Your task to perform on an android device: open app "Google Sheets" (install if not already installed) Image 0: 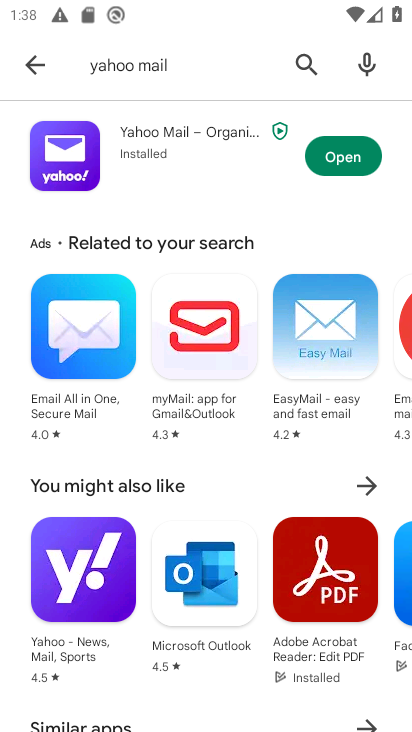
Step 0: press home button
Your task to perform on an android device: open app "Google Sheets" (install if not already installed) Image 1: 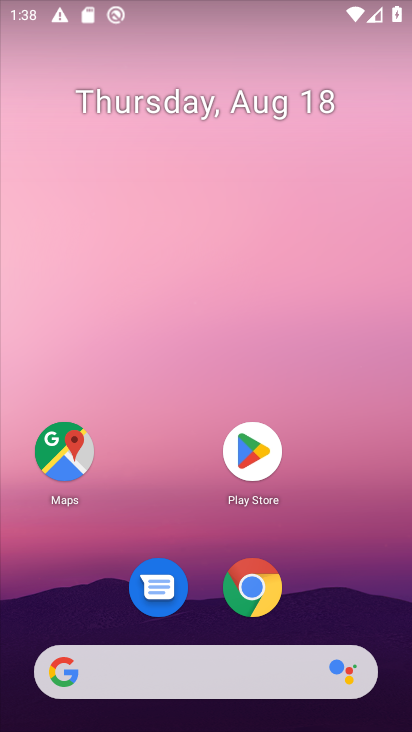
Step 1: click (245, 443)
Your task to perform on an android device: open app "Google Sheets" (install if not already installed) Image 2: 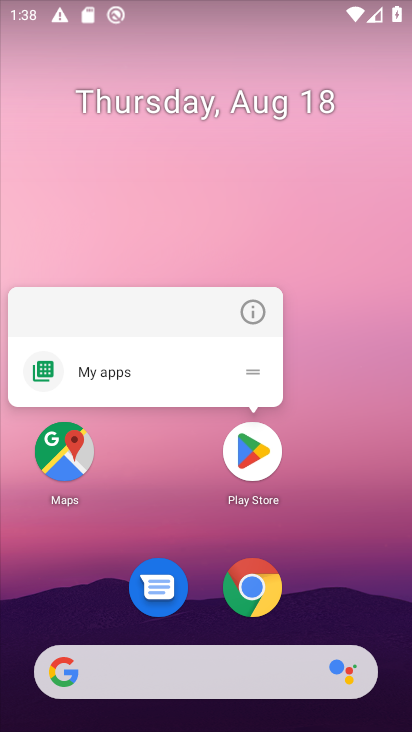
Step 2: click (248, 448)
Your task to perform on an android device: open app "Google Sheets" (install if not already installed) Image 3: 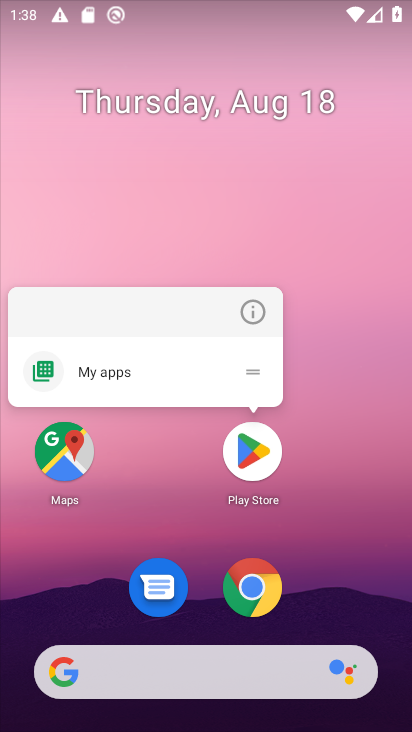
Step 3: click (248, 448)
Your task to perform on an android device: open app "Google Sheets" (install if not already installed) Image 4: 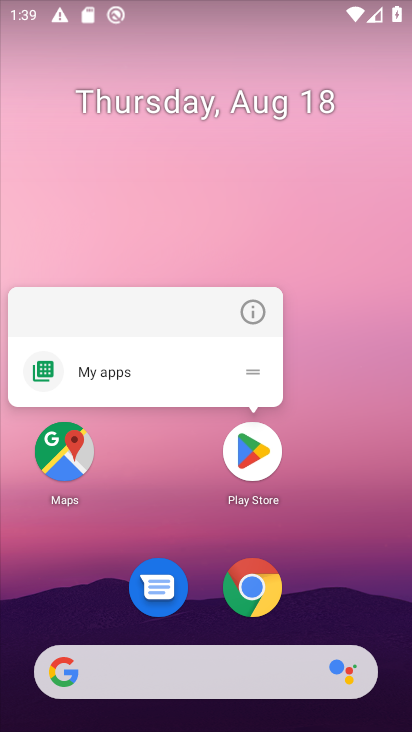
Step 4: click (248, 457)
Your task to perform on an android device: open app "Google Sheets" (install if not already installed) Image 5: 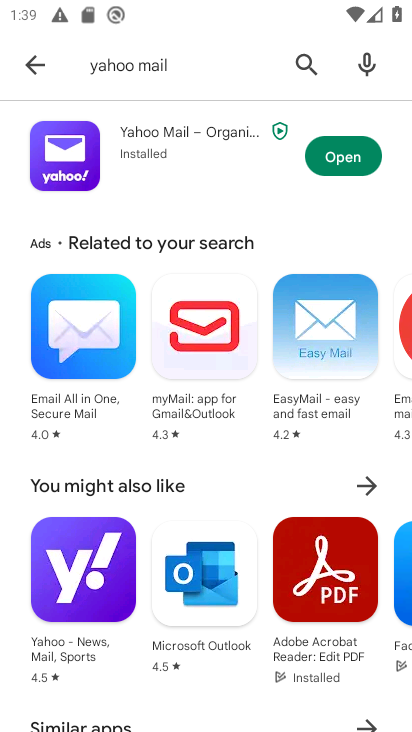
Step 5: click (302, 62)
Your task to perform on an android device: open app "Google Sheets" (install if not already installed) Image 6: 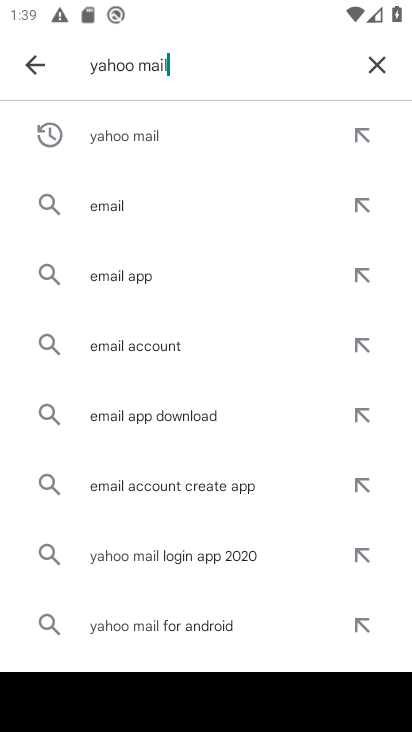
Step 6: click (374, 64)
Your task to perform on an android device: open app "Google Sheets" (install if not already installed) Image 7: 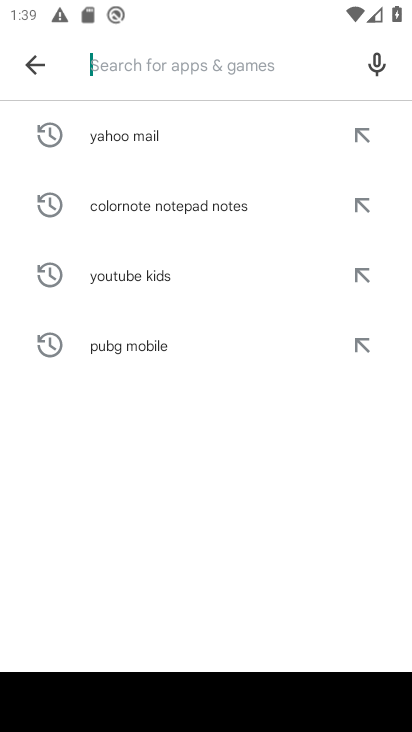
Step 7: type "Google Sheets"
Your task to perform on an android device: open app "Google Sheets" (install if not already installed) Image 8: 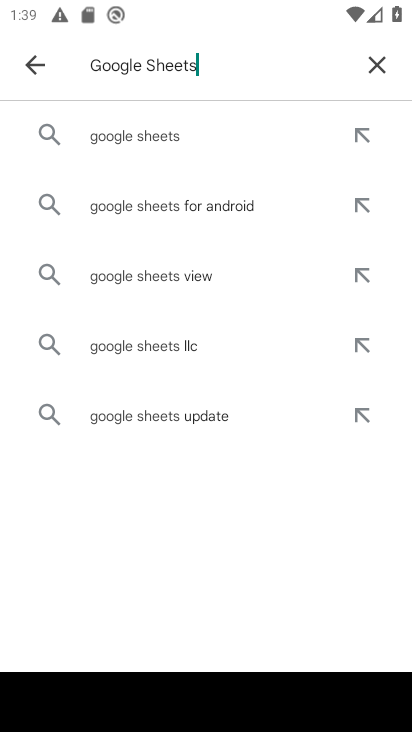
Step 8: click (163, 132)
Your task to perform on an android device: open app "Google Sheets" (install if not already installed) Image 9: 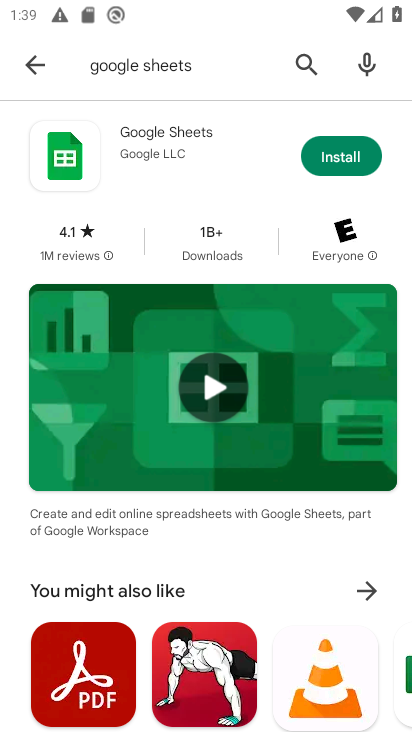
Step 9: click (354, 156)
Your task to perform on an android device: open app "Google Sheets" (install if not already installed) Image 10: 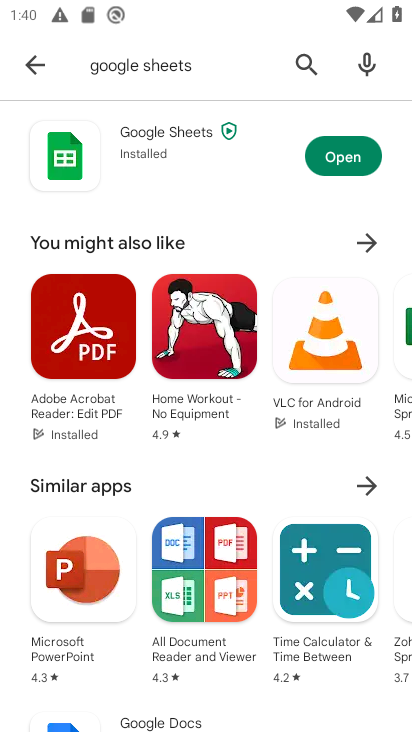
Step 10: click (354, 156)
Your task to perform on an android device: open app "Google Sheets" (install if not already installed) Image 11: 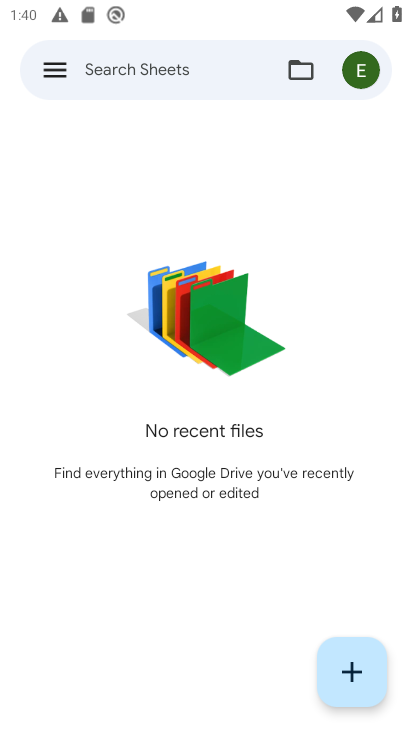
Step 11: task complete